Your task to perform on an android device: snooze an email in the gmail app Image 0: 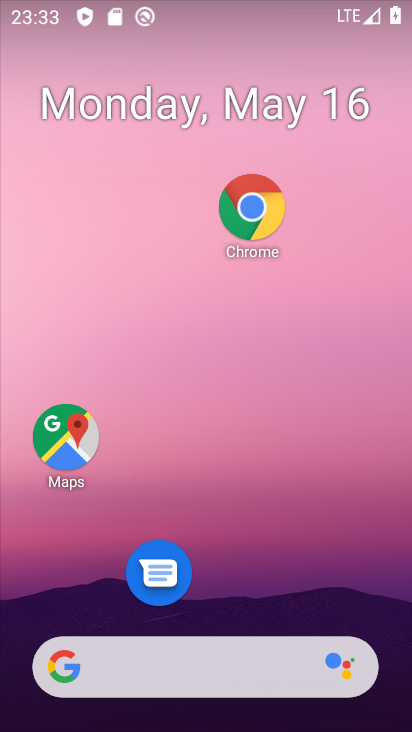
Step 0: drag from (271, 578) to (269, 123)
Your task to perform on an android device: snooze an email in the gmail app Image 1: 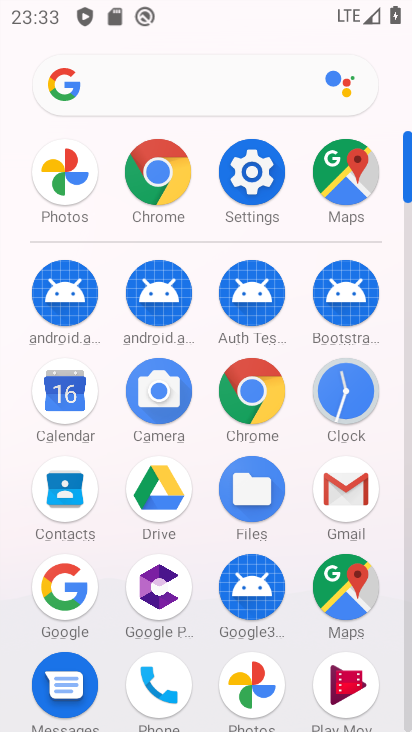
Step 1: click (346, 484)
Your task to perform on an android device: snooze an email in the gmail app Image 2: 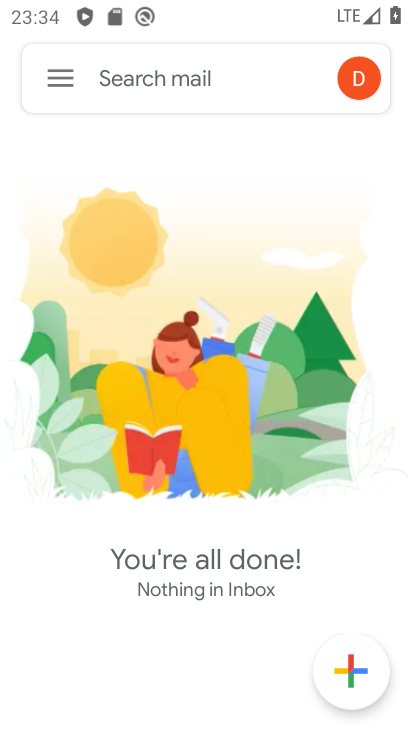
Step 2: click (53, 86)
Your task to perform on an android device: snooze an email in the gmail app Image 3: 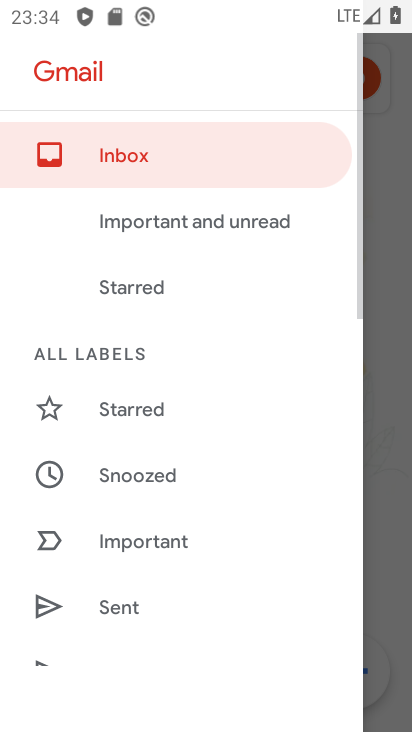
Step 3: click (110, 477)
Your task to perform on an android device: snooze an email in the gmail app Image 4: 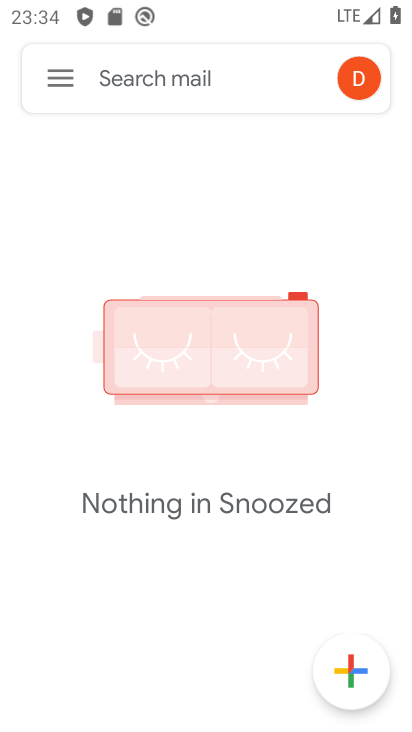
Step 4: task complete